Your task to perform on an android device: Set the phone to "Do not disturb". Image 0: 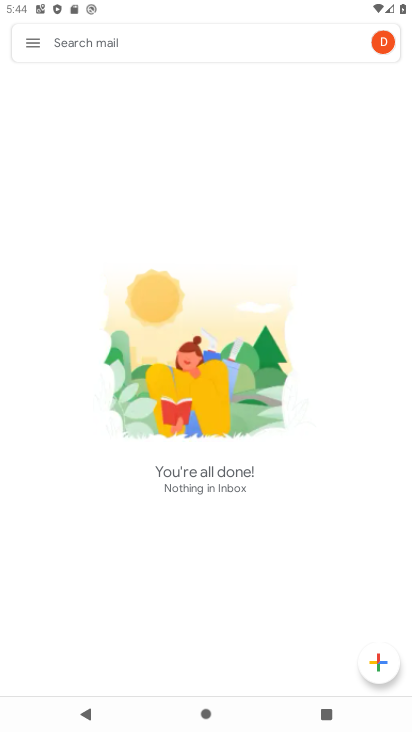
Step 0: press home button
Your task to perform on an android device: Set the phone to "Do not disturb". Image 1: 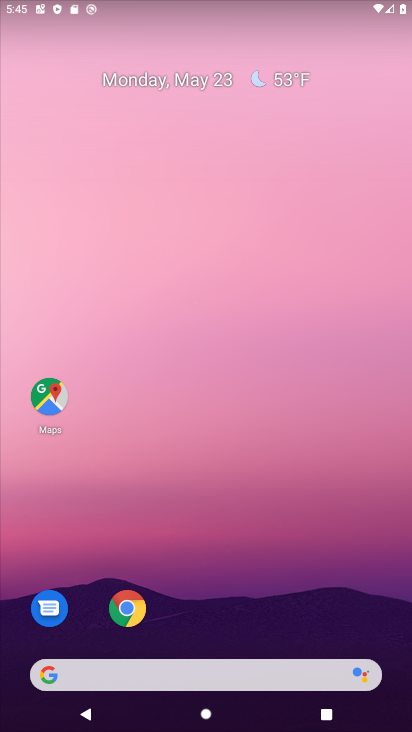
Step 1: drag from (232, 2) to (202, 439)
Your task to perform on an android device: Set the phone to "Do not disturb". Image 2: 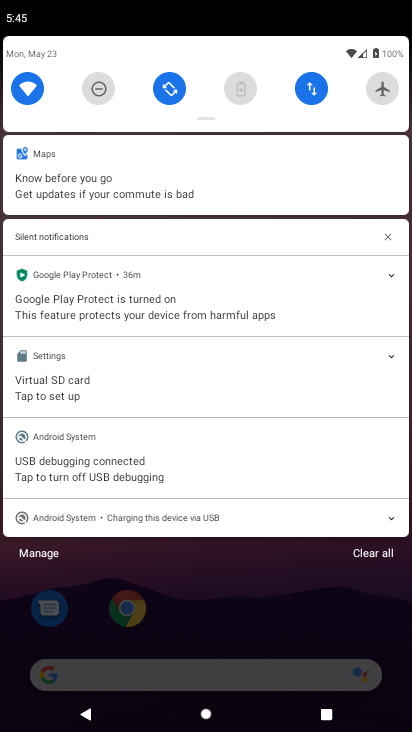
Step 2: click (95, 91)
Your task to perform on an android device: Set the phone to "Do not disturb". Image 3: 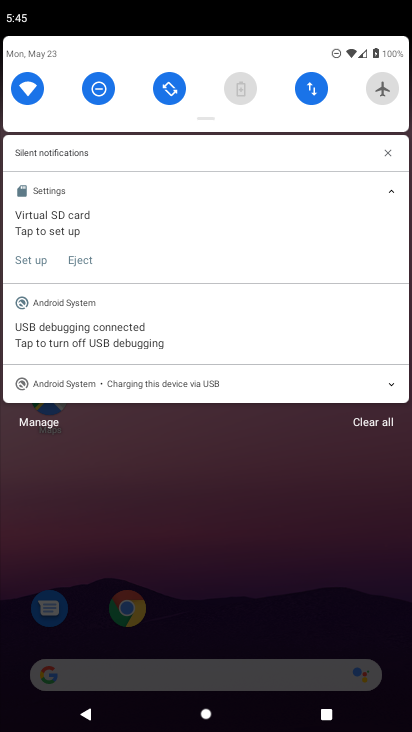
Step 3: task complete